Your task to perform on an android device: turn on bluetooth scan Image 0: 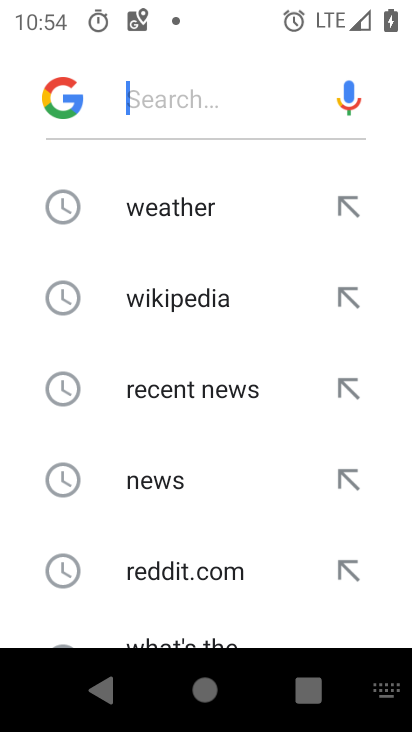
Step 0: press home button
Your task to perform on an android device: turn on bluetooth scan Image 1: 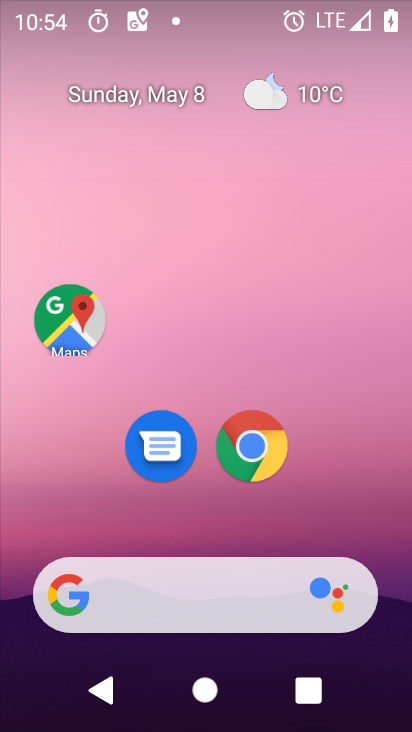
Step 1: drag from (337, 520) to (356, 2)
Your task to perform on an android device: turn on bluetooth scan Image 2: 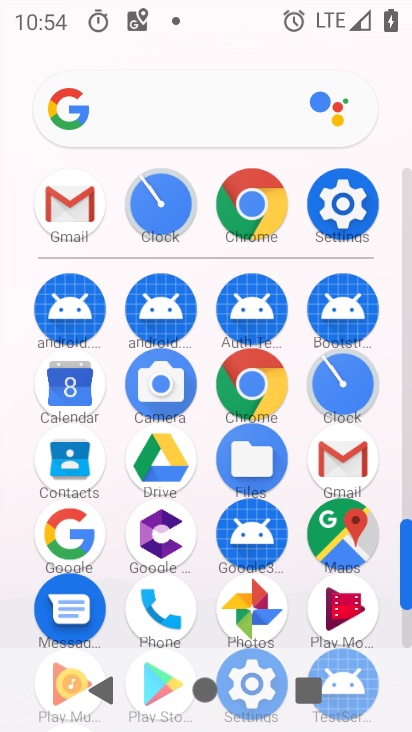
Step 2: click (341, 208)
Your task to perform on an android device: turn on bluetooth scan Image 3: 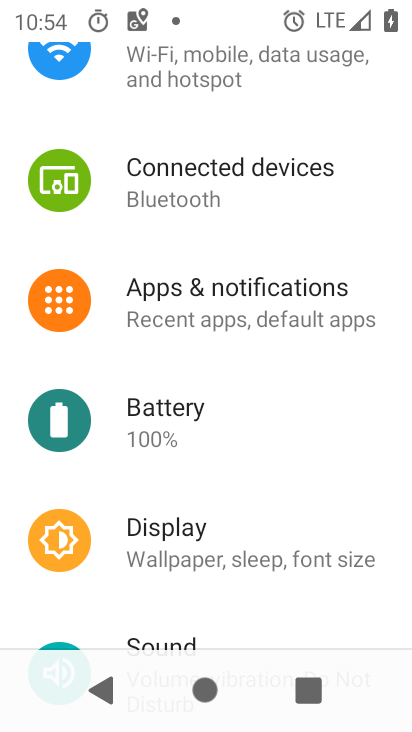
Step 3: drag from (390, 506) to (400, 139)
Your task to perform on an android device: turn on bluetooth scan Image 4: 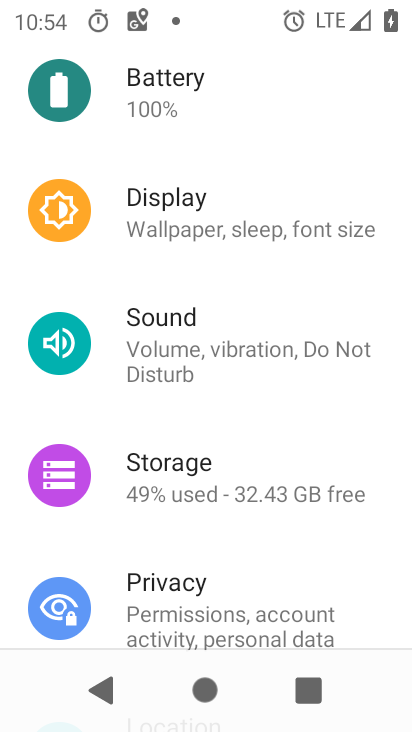
Step 4: drag from (384, 541) to (385, 215)
Your task to perform on an android device: turn on bluetooth scan Image 5: 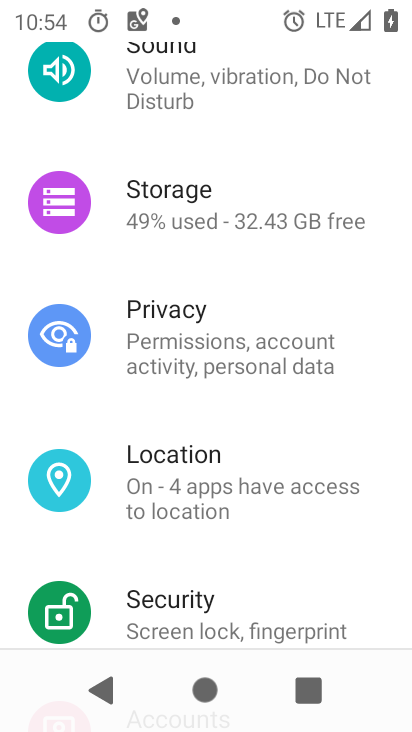
Step 5: drag from (381, 520) to (384, 163)
Your task to perform on an android device: turn on bluetooth scan Image 6: 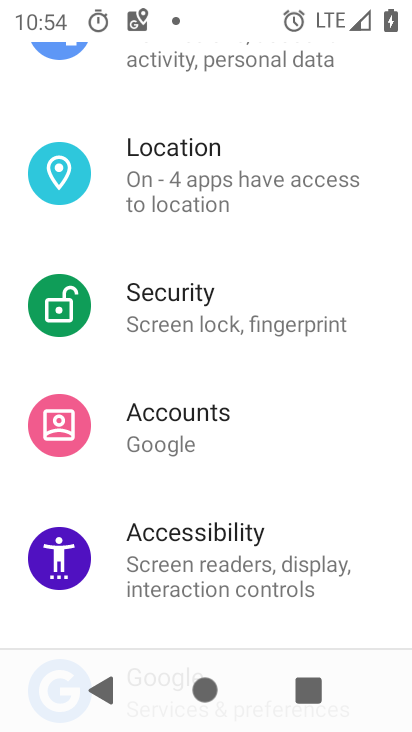
Step 6: drag from (388, 472) to (372, 199)
Your task to perform on an android device: turn on bluetooth scan Image 7: 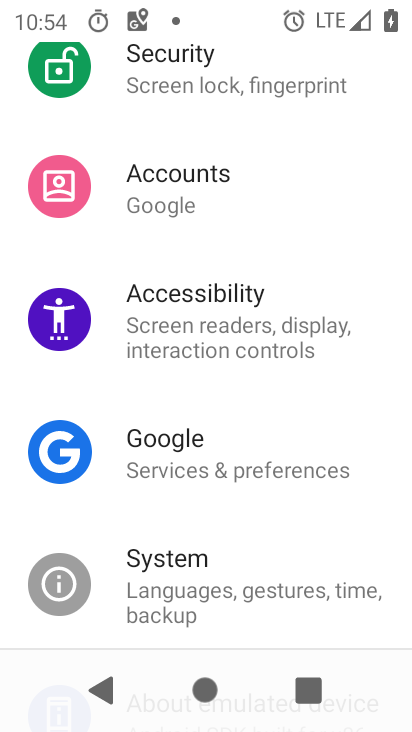
Step 7: drag from (372, 272) to (363, 612)
Your task to perform on an android device: turn on bluetooth scan Image 8: 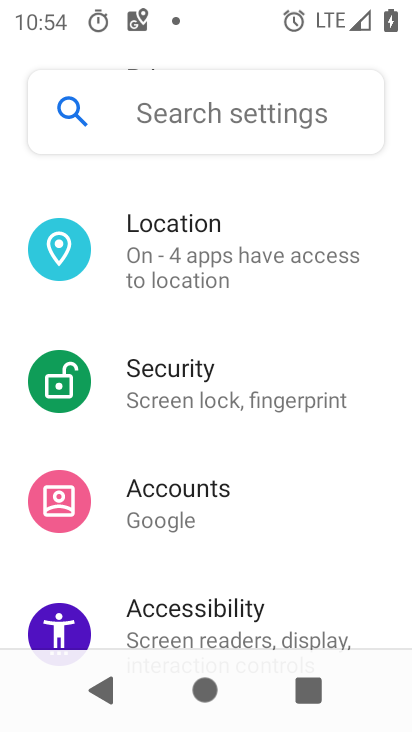
Step 8: click (195, 264)
Your task to perform on an android device: turn on bluetooth scan Image 9: 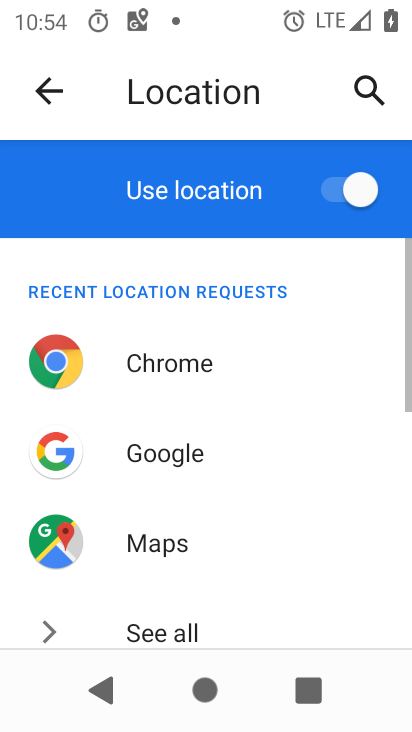
Step 9: drag from (346, 527) to (356, 191)
Your task to perform on an android device: turn on bluetooth scan Image 10: 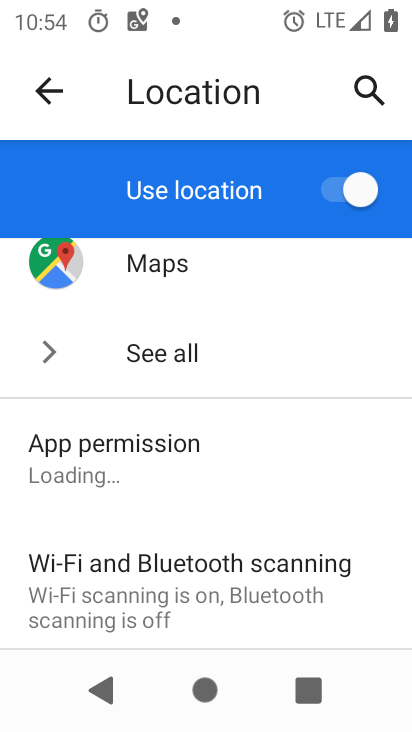
Step 10: click (232, 574)
Your task to perform on an android device: turn on bluetooth scan Image 11: 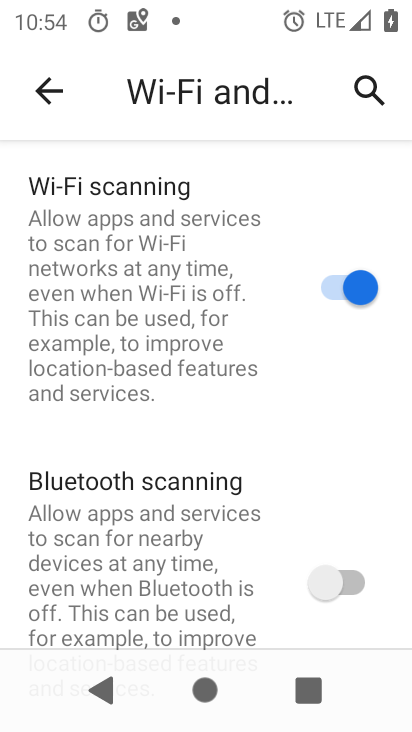
Step 11: click (322, 583)
Your task to perform on an android device: turn on bluetooth scan Image 12: 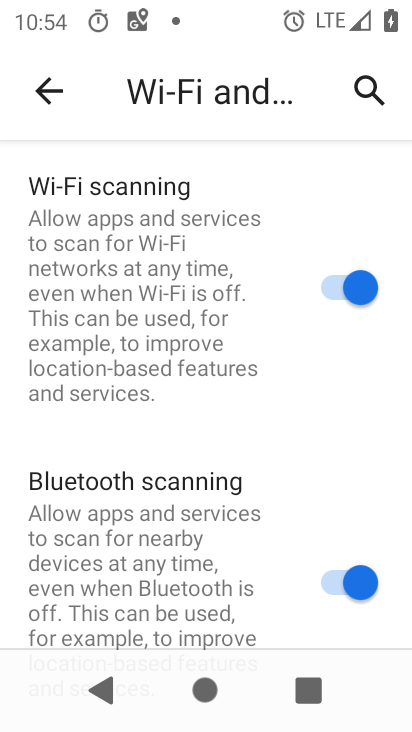
Step 12: task complete